Your task to perform on an android device: Go to network settings Image 0: 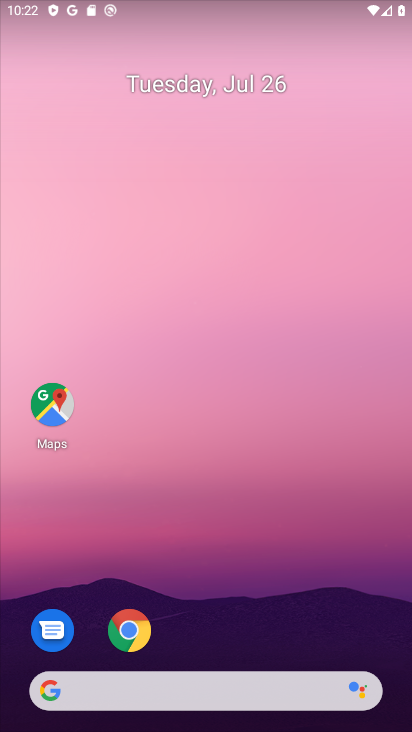
Step 0: drag from (283, 595) to (306, 18)
Your task to perform on an android device: Go to network settings Image 1: 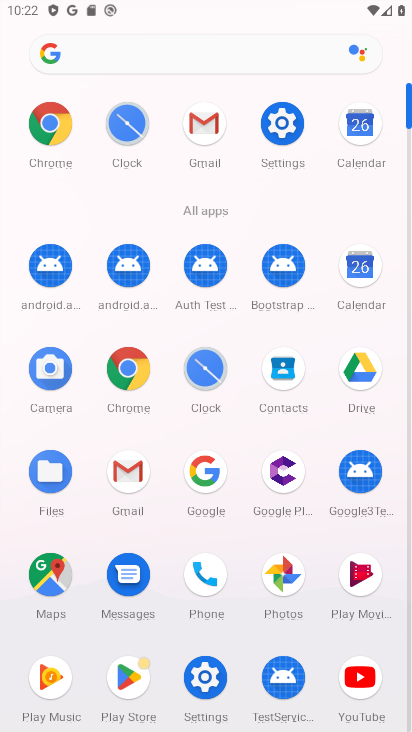
Step 1: click (282, 112)
Your task to perform on an android device: Go to network settings Image 2: 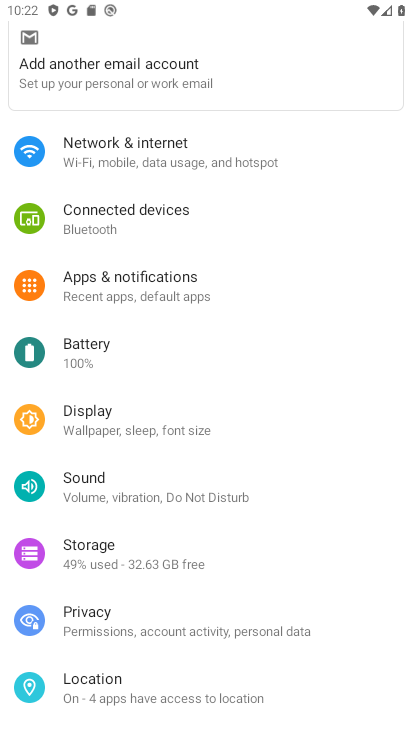
Step 2: click (124, 138)
Your task to perform on an android device: Go to network settings Image 3: 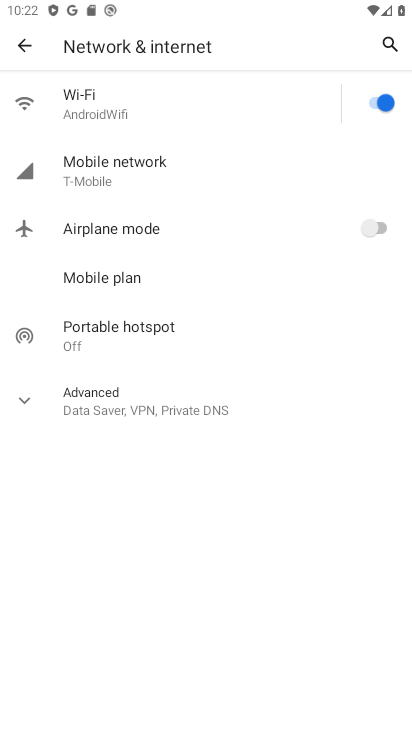
Step 3: task complete